Your task to perform on an android device: choose inbox layout in the gmail app Image 0: 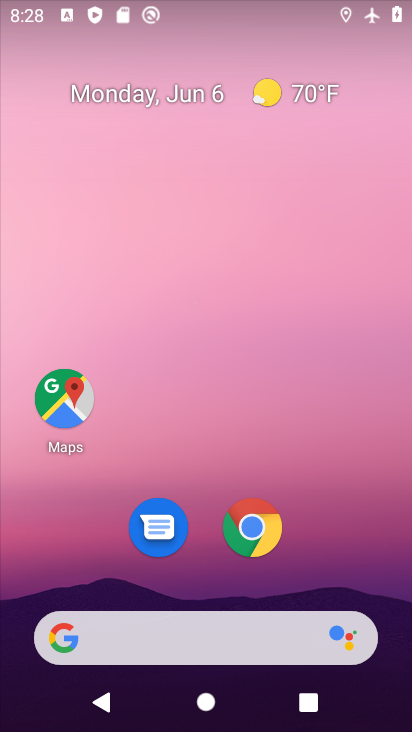
Step 0: drag from (235, 569) to (248, 314)
Your task to perform on an android device: choose inbox layout in the gmail app Image 1: 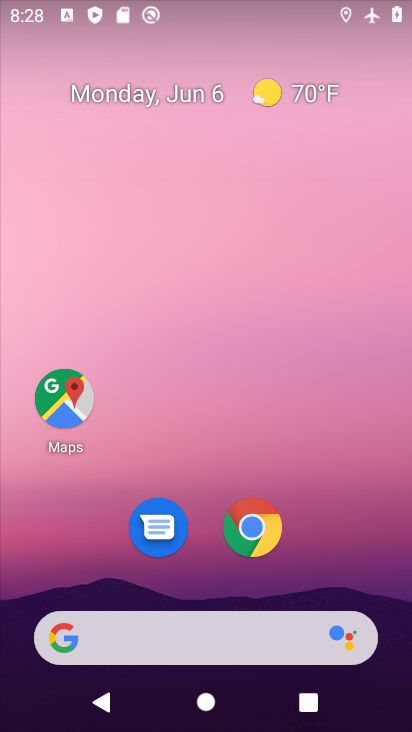
Step 1: drag from (188, 501) to (238, 111)
Your task to perform on an android device: choose inbox layout in the gmail app Image 2: 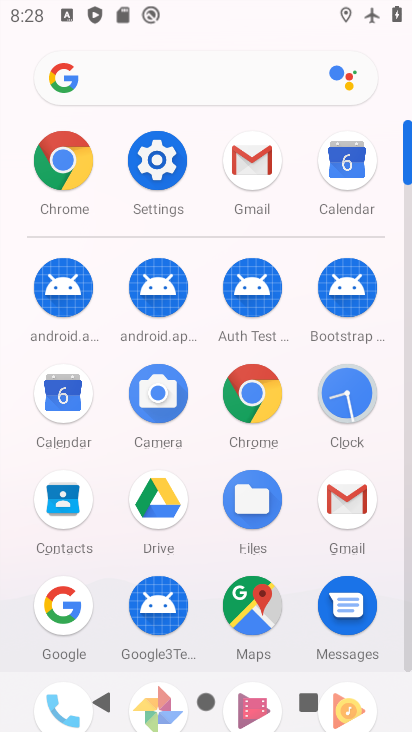
Step 2: click (345, 478)
Your task to perform on an android device: choose inbox layout in the gmail app Image 3: 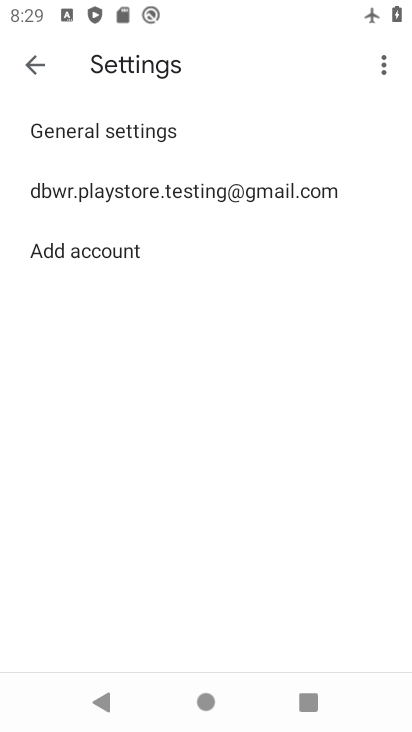
Step 3: click (94, 152)
Your task to perform on an android device: choose inbox layout in the gmail app Image 4: 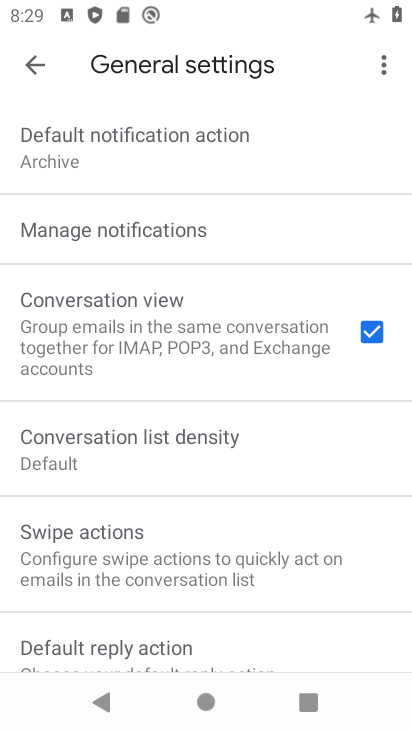
Step 4: task complete